Your task to perform on an android device: turn off sleep mode Image 0: 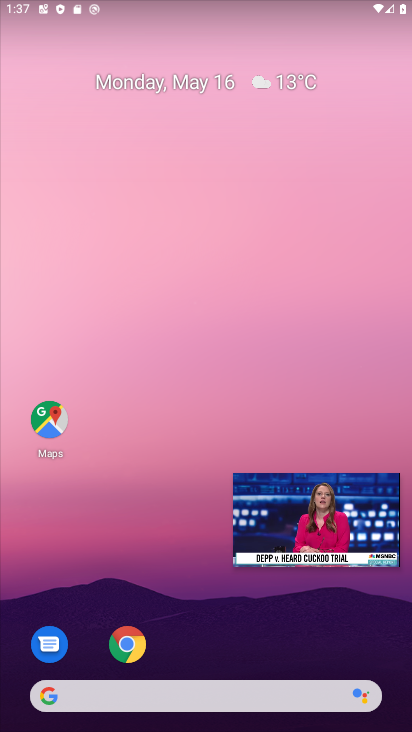
Step 0: click (384, 497)
Your task to perform on an android device: turn off sleep mode Image 1: 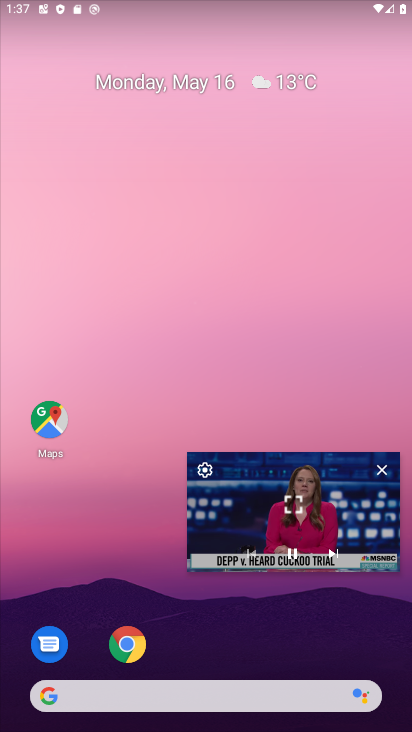
Step 1: click (384, 472)
Your task to perform on an android device: turn off sleep mode Image 2: 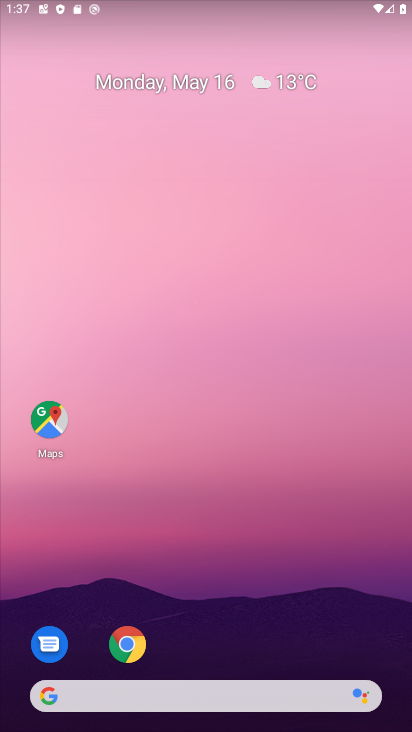
Step 2: drag from (187, 632) to (261, 38)
Your task to perform on an android device: turn off sleep mode Image 3: 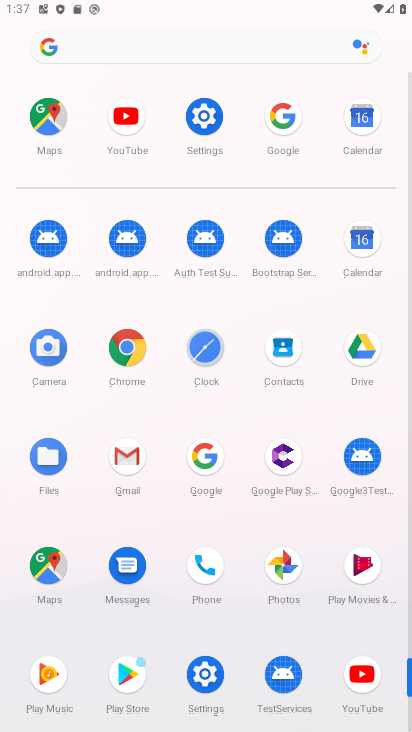
Step 3: drag from (304, 510) to (308, 257)
Your task to perform on an android device: turn off sleep mode Image 4: 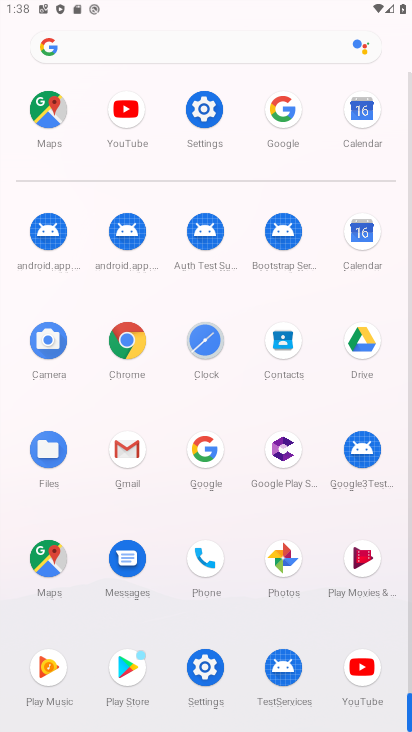
Step 4: click (212, 694)
Your task to perform on an android device: turn off sleep mode Image 5: 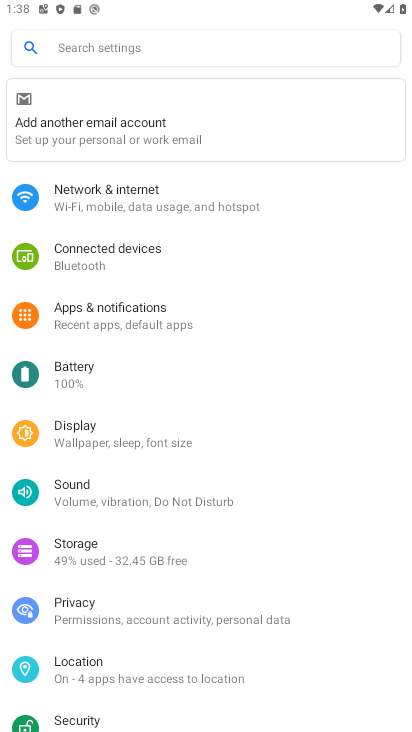
Step 5: drag from (151, 525) to (190, 268)
Your task to perform on an android device: turn off sleep mode Image 6: 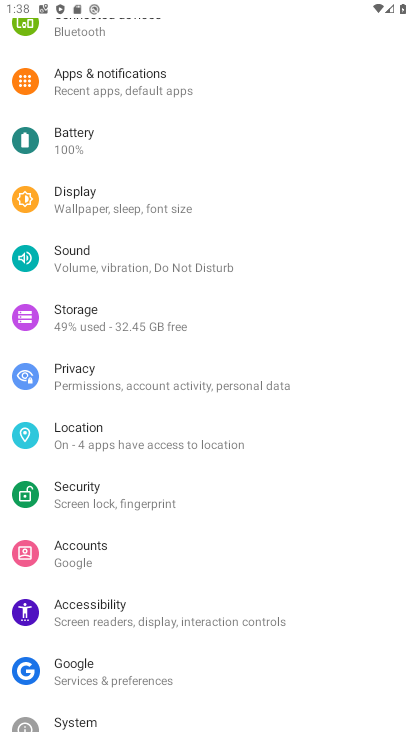
Step 6: click (124, 206)
Your task to perform on an android device: turn off sleep mode Image 7: 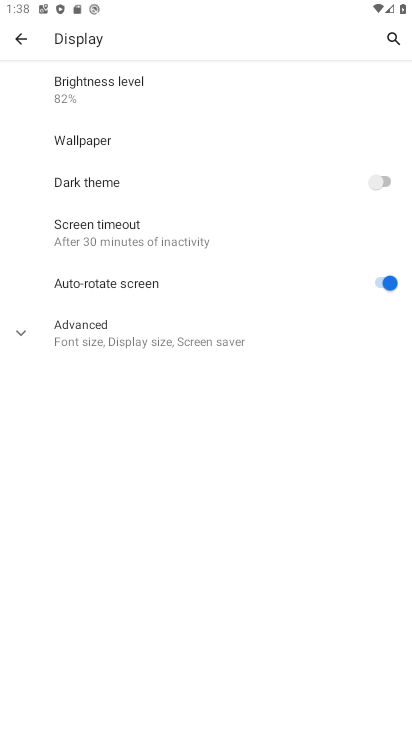
Step 7: task complete